Your task to perform on an android device: Go to wifi settings Image 0: 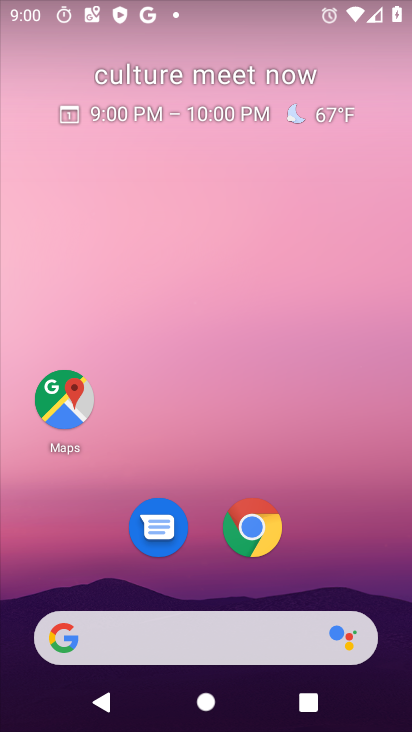
Step 0: drag from (237, 730) to (238, 148)
Your task to perform on an android device: Go to wifi settings Image 1: 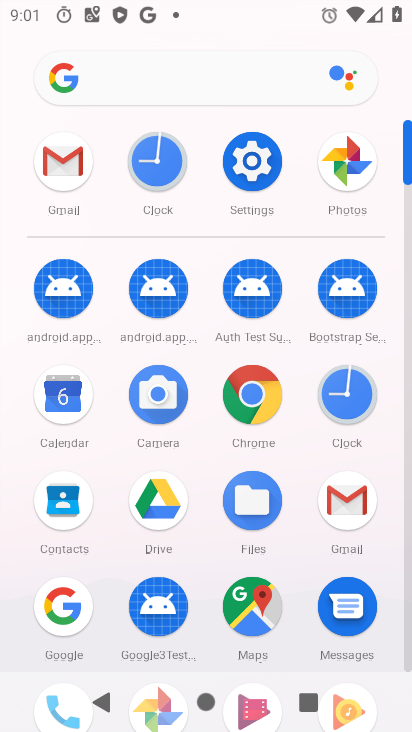
Step 1: click (260, 155)
Your task to perform on an android device: Go to wifi settings Image 2: 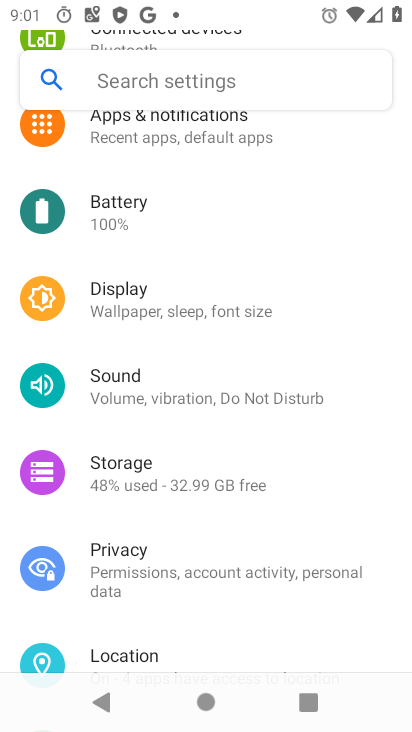
Step 2: drag from (233, 172) to (262, 433)
Your task to perform on an android device: Go to wifi settings Image 3: 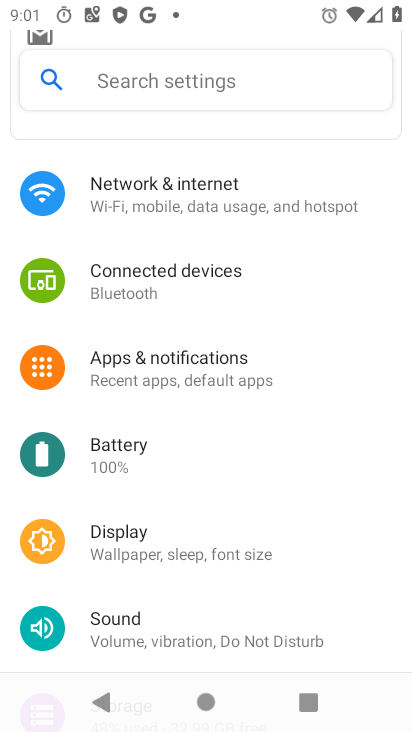
Step 3: click (183, 200)
Your task to perform on an android device: Go to wifi settings Image 4: 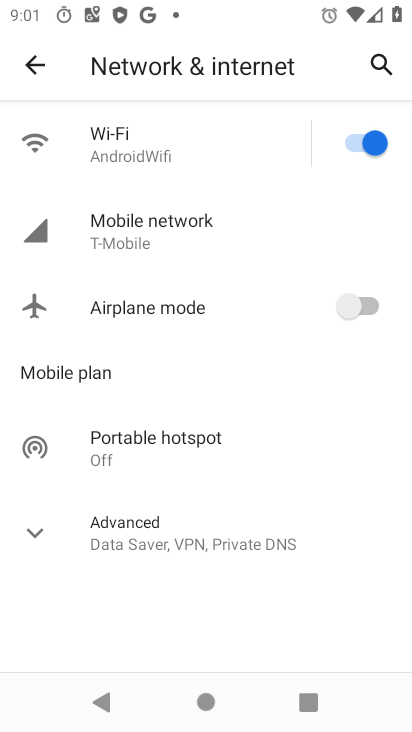
Step 4: click (145, 137)
Your task to perform on an android device: Go to wifi settings Image 5: 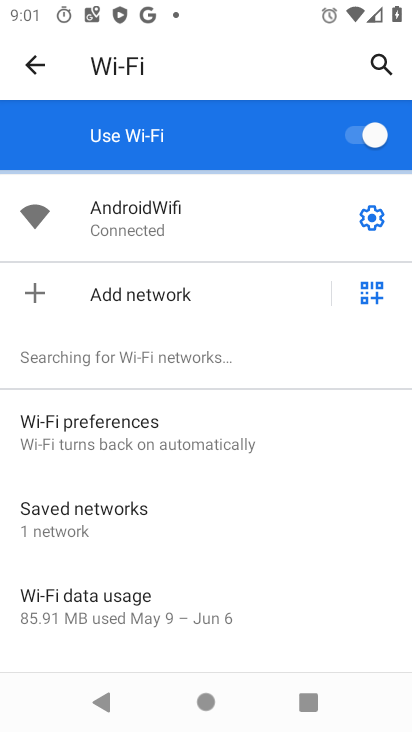
Step 5: task complete